Your task to perform on an android device: read, delete, or share a saved page in the chrome app Image 0: 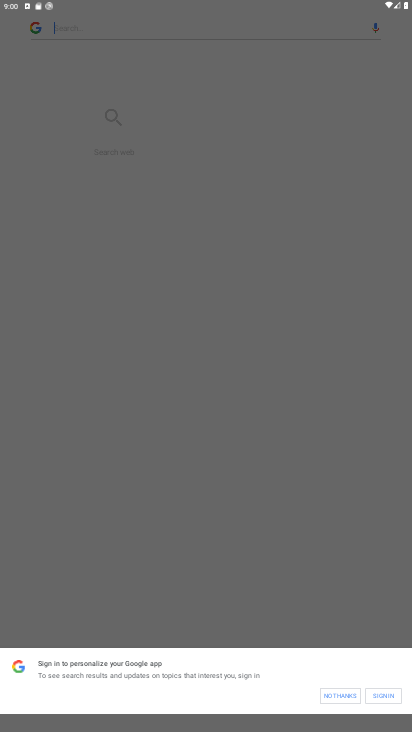
Step 0: press home button
Your task to perform on an android device: read, delete, or share a saved page in the chrome app Image 1: 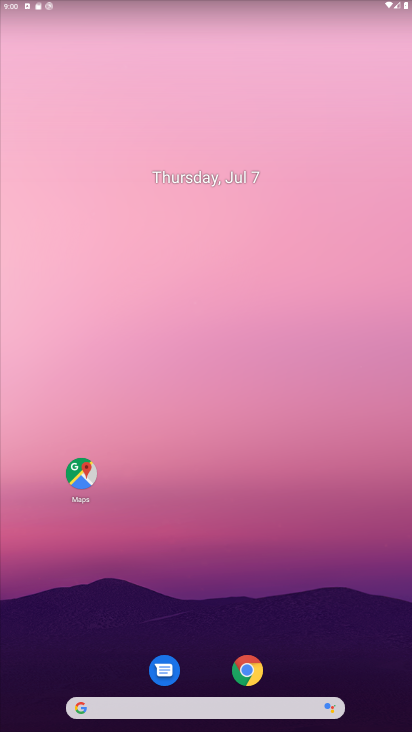
Step 1: click (247, 668)
Your task to perform on an android device: read, delete, or share a saved page in the chrome app Image 2: 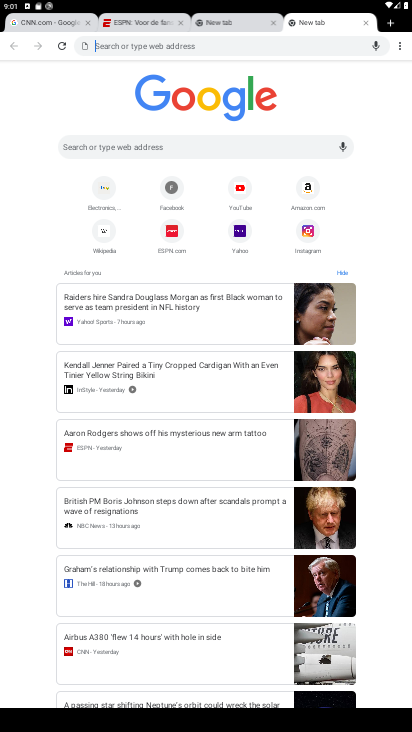
Step 2: click (315, 229)
Your task to perform on an android device: read, delete, or share a saved page in the chrome app Image 3: 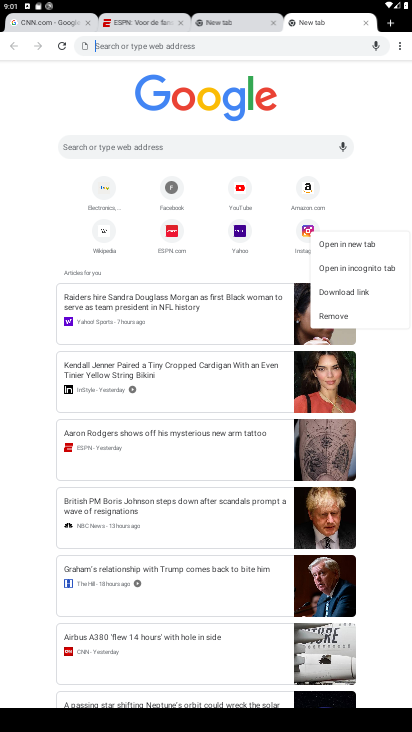
Step 3: click (340, 322)
Your task to perform on an android device: read, delete, or share a saved page in the chrome app Image 4: 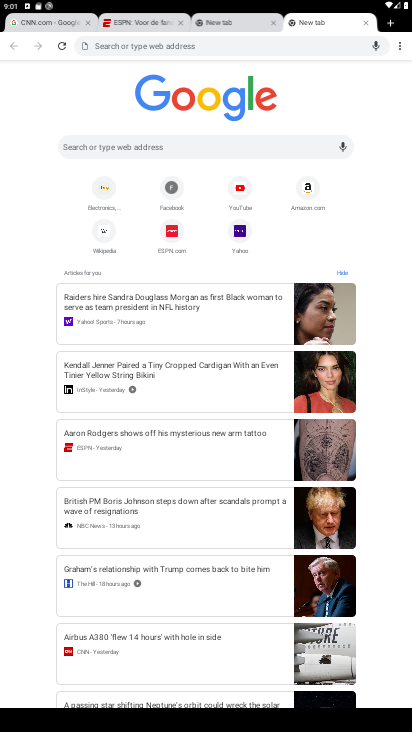
Step 4: task complete